Your task to perform on an android device: open wifi settings Image 0: 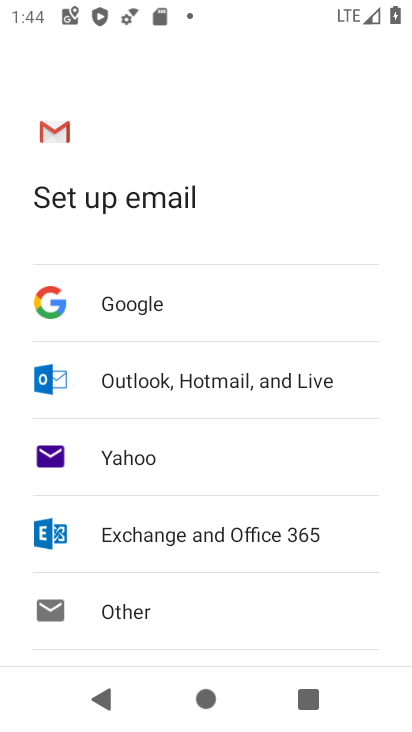
Step 0: press home button
Your task to perform on an android device: open wifi settings Image 1: 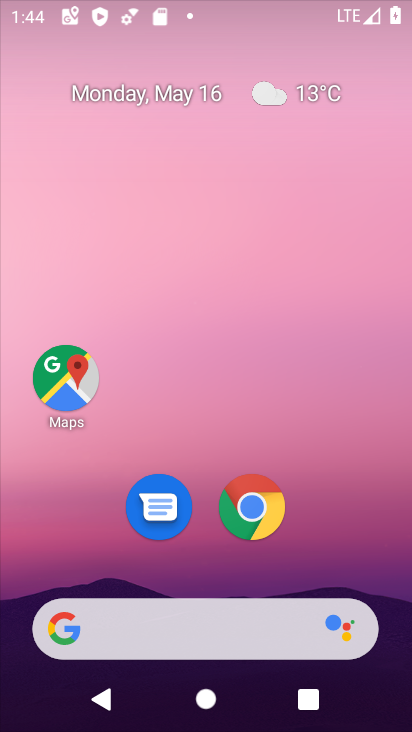
Step 1: drag from (350, 534) to (199, 29)
Your task to perform on an android device: open wifi settings Image 2: 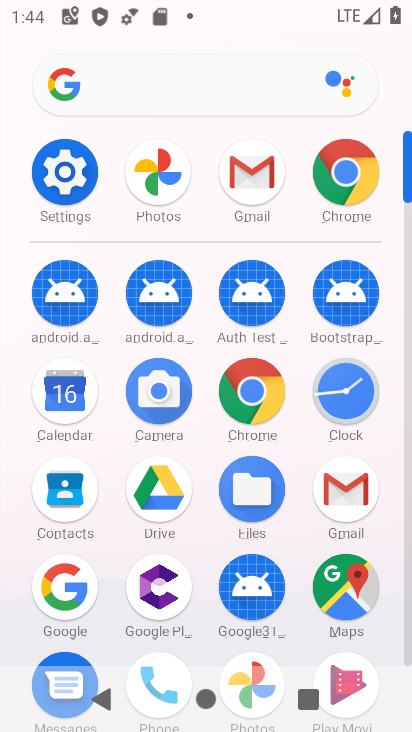
Step 2: click (72, 172)
Your task to perform on an android device: open wifi settings Image 3: 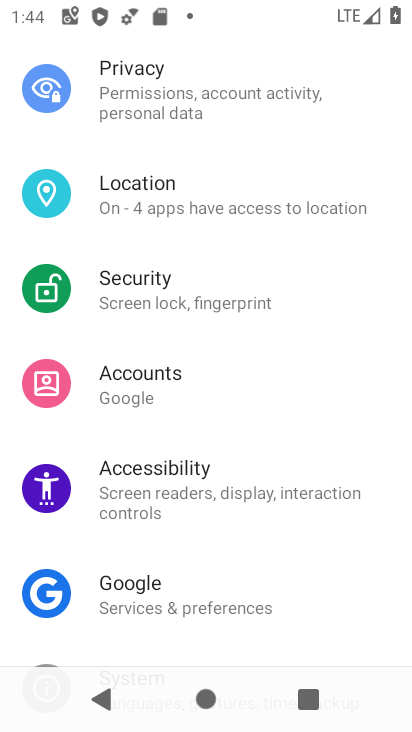
Step 3: drag from (237, 128) to (287, 646)
Your task to perform on an android device: open wifi settings Image 4: 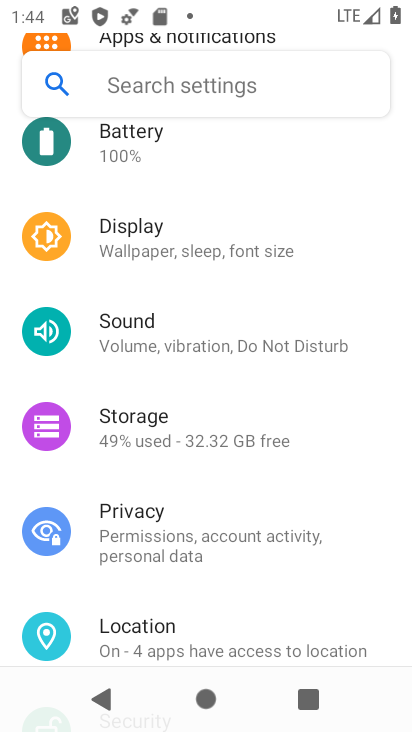
Step 4: drag from (191, 133) to (232, 601)
Your task to perform on an android device: open wifi settings Image 5: 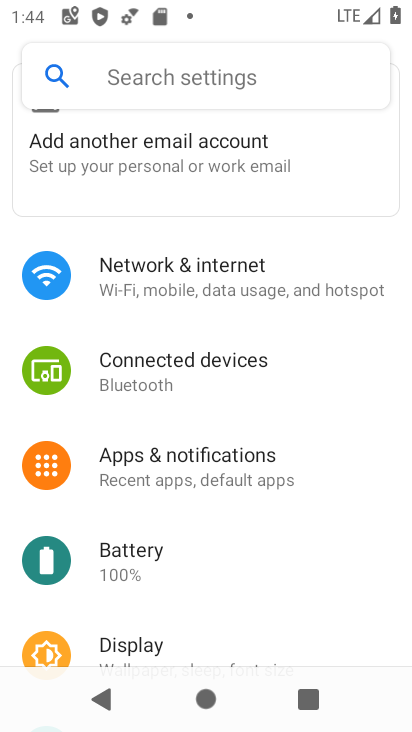
Step 5: drag from (204, 220) to (232, 620)
Your task to perform on an android device: open wifi settings Image 6: 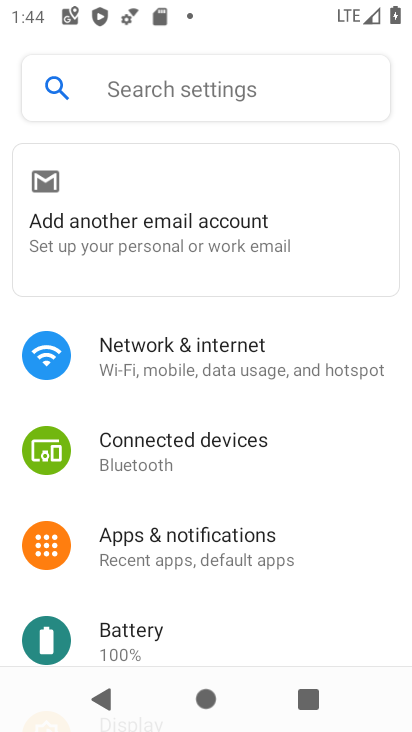
Step 6: drag from (190, 187) to (241, 580)
Your task to perform on an android device: open wifi settings Image 7: 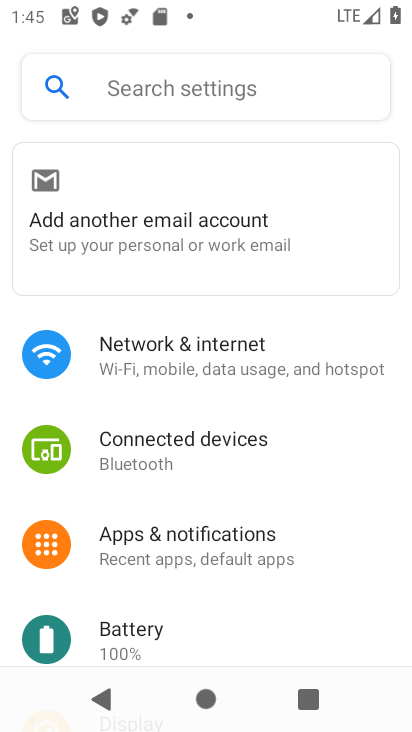
Step 7: click (188, 356)
Your task to perform on an android device: open wifi settings Image 8: 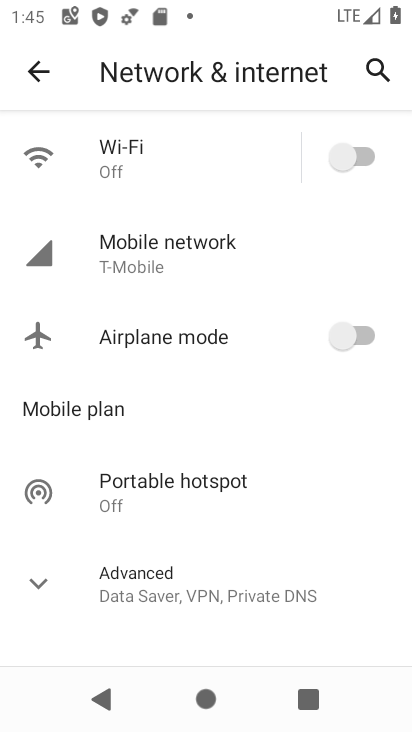
Step 8: click (176, 157)
Your task to perform on an android device: open wifi settings Image 9: 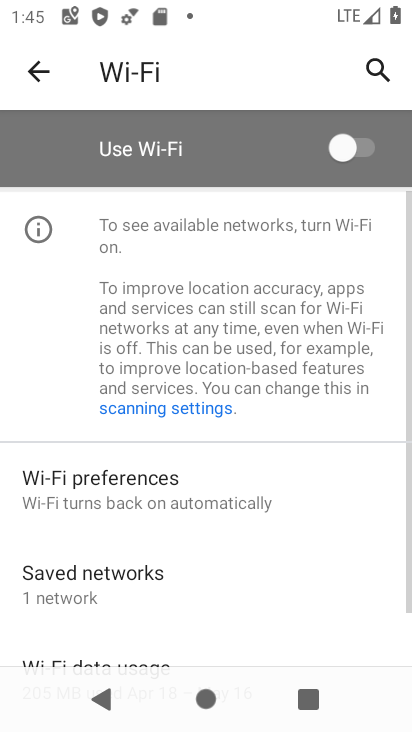
Step 9: task complete